Your task to perform on an android device: see sites visited before in the chrome app Image 0: 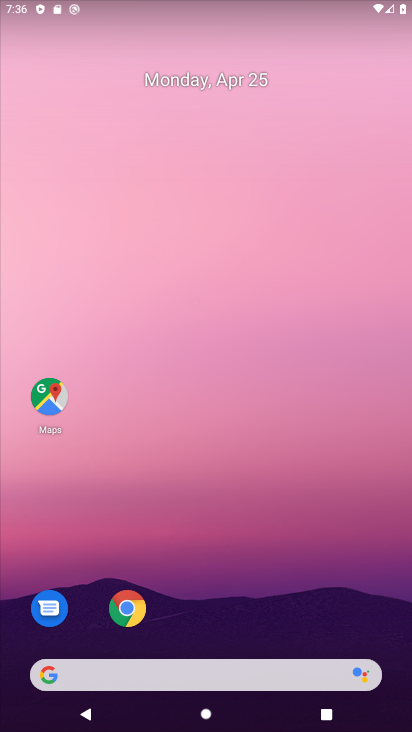
Step 0: click (306, 613)
Your task to perform on an android device: see sites visited before in the chrome app Image 1: 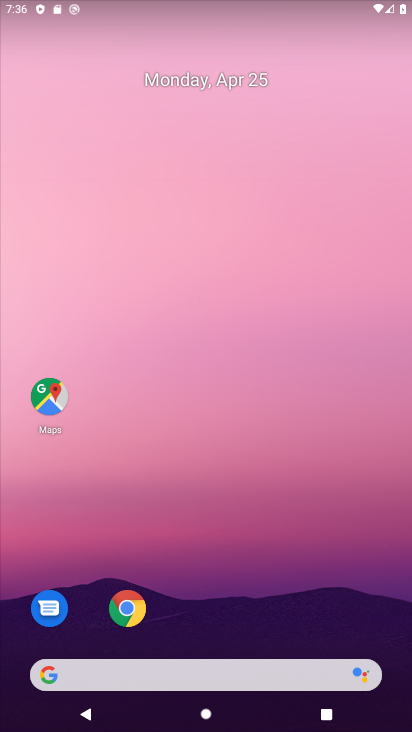
Step 1: click (129, 609)
Your task to perform on an android device: see sites visited before in the chrome app Image 2: 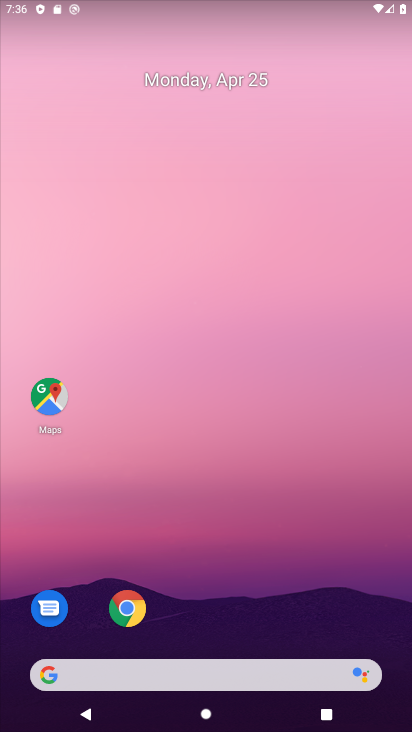
Step 2: click (130, 609)
Your task to perform on an android device: see sites visited before in the chrome app Image 3: 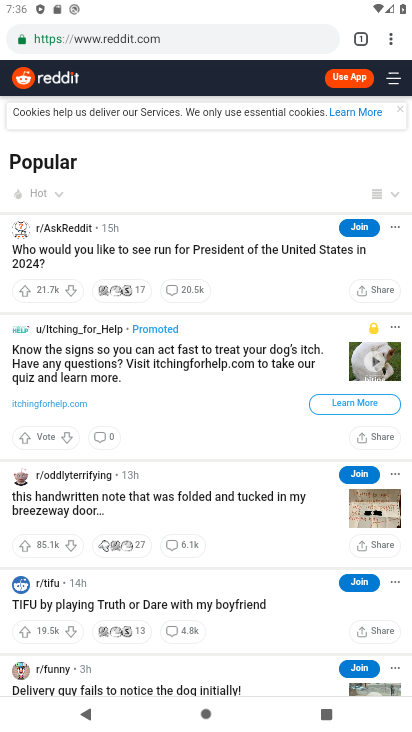
Step 3: click (393, 45)
Your task to perform on an android device: see sites visited before in the chrome app Image 4: 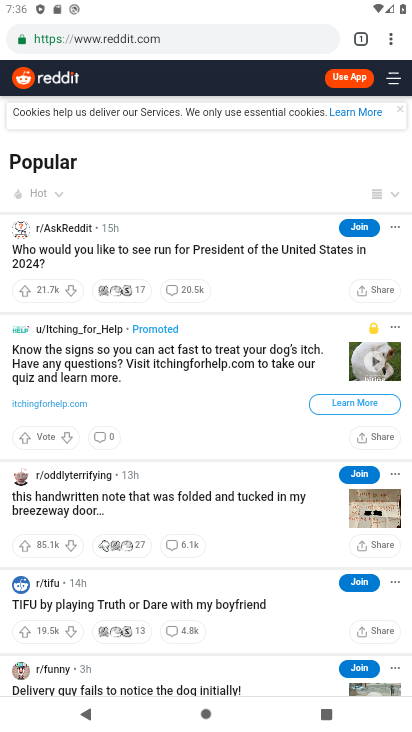
Step 4: click (393, 45)
Your task to perform on an android device: see sites visited before in the chrome app Image 5: 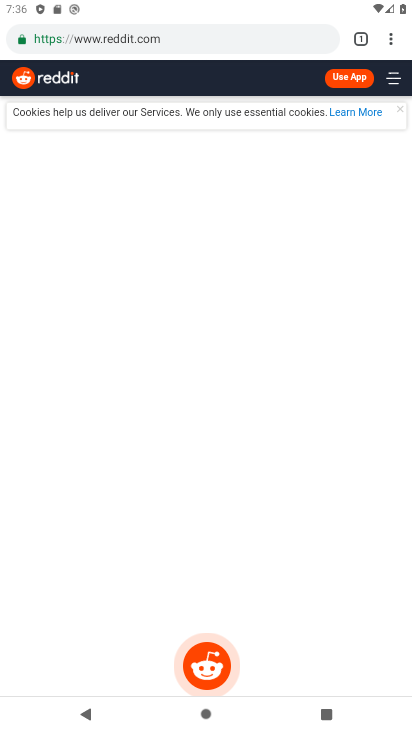
Step 5: click (396, 42)
Your task to perform on an android device: see sites visited before in the chrome app Image 6: 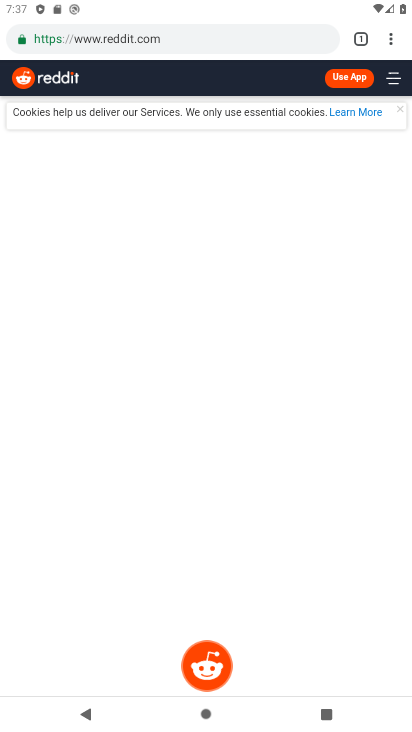
Step 6: click (395, 41)
Your task to perform on an android device: see sites visited before in the chrome app Image 7: 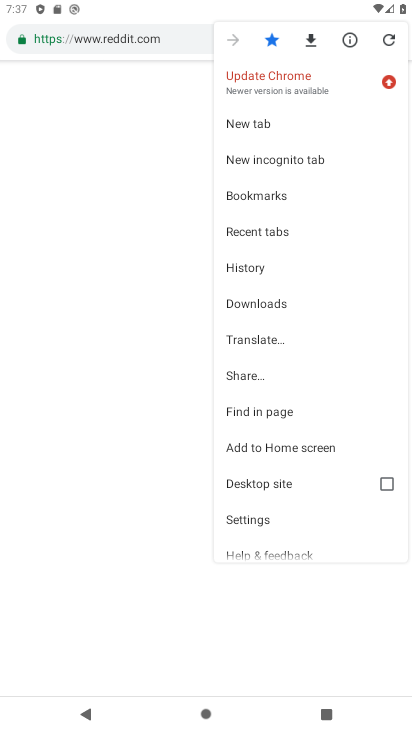
Step 7: click (265, 265)
Your task to perform on an android device: see sites visited before in the chrome app Image 8: 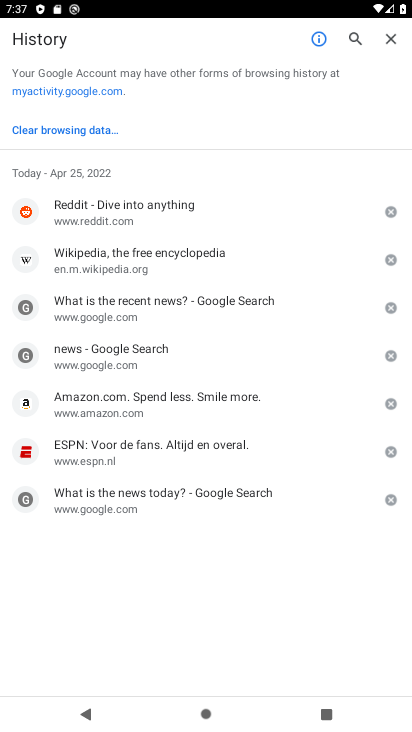
Step 8: task complete